Your task to perform on an android device: Go to Yahoo.com Image 0: 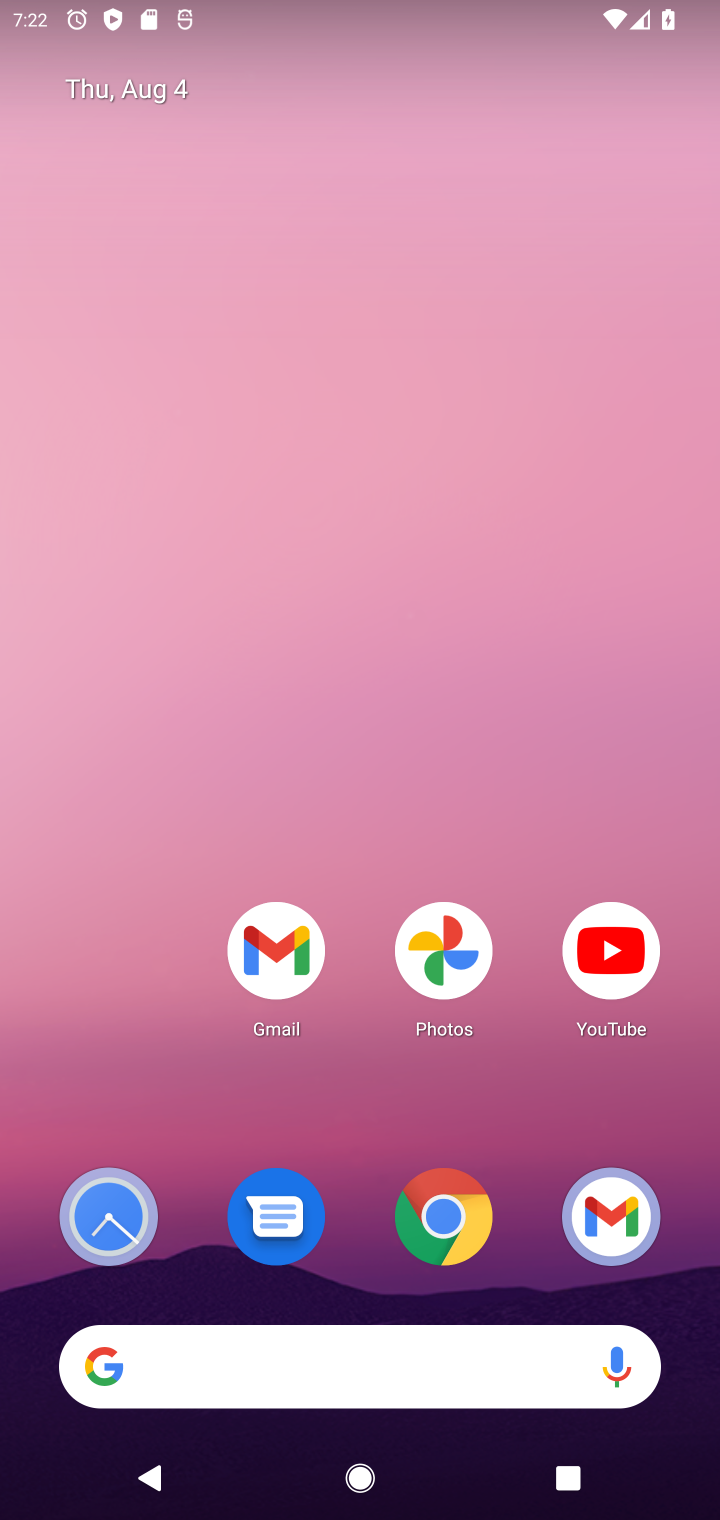
Step 0: click (451, 1217)
Your task to perform on an android device: Go to Yahoo.com Image 1: 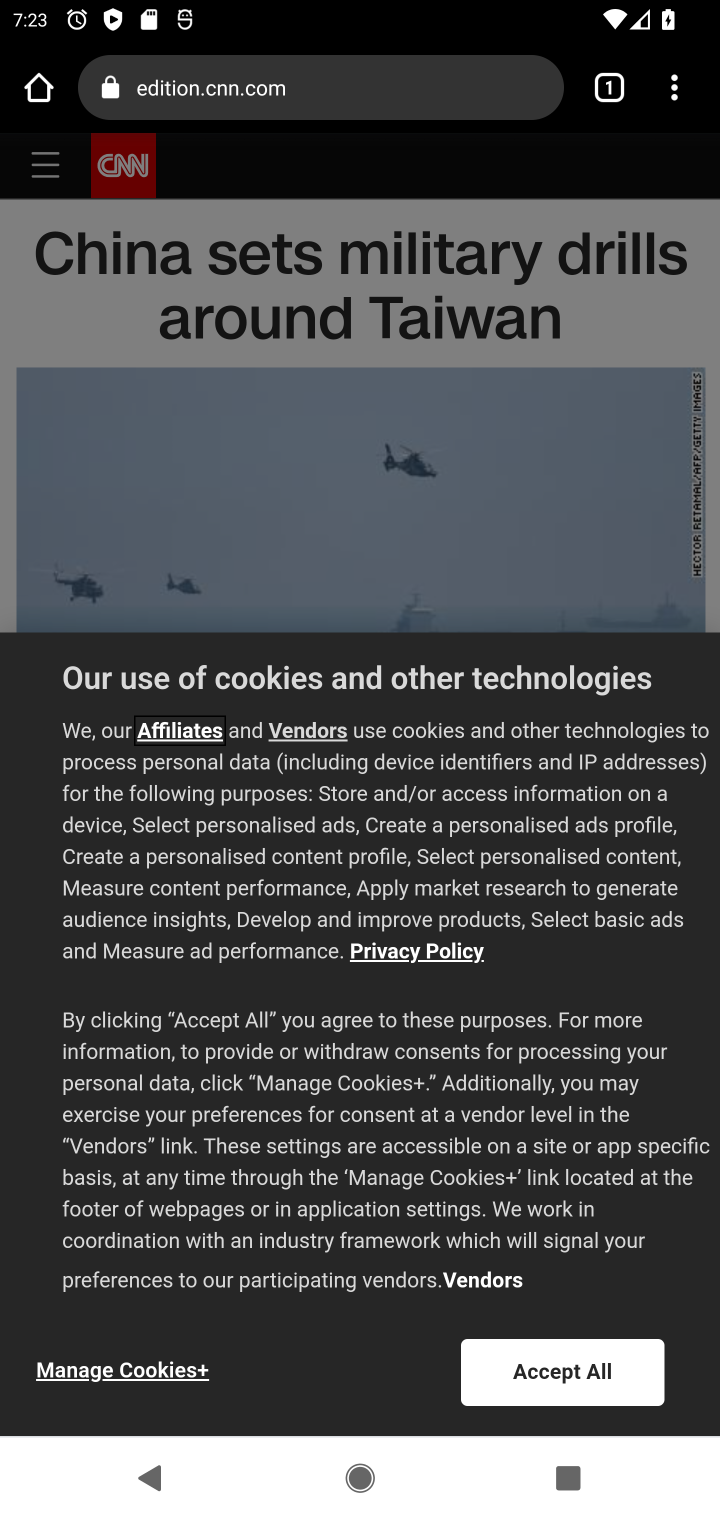
Step 1: click (466, 95)
Your task to perform on an android device: Go to Yahoo.com Image 2: 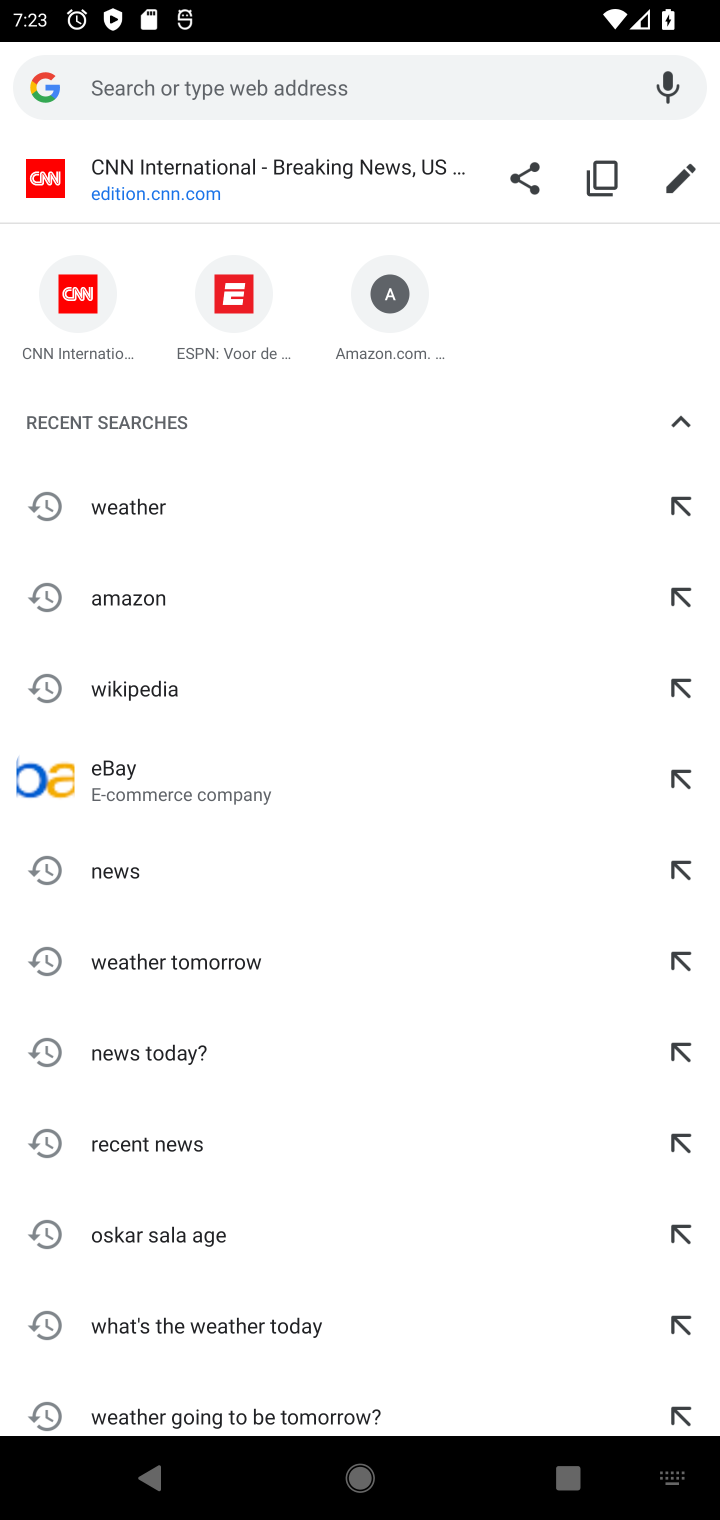
Step 2: type "yahoo.com"
Your task to perform on an android device: Go to Yahoo.com Image 3: 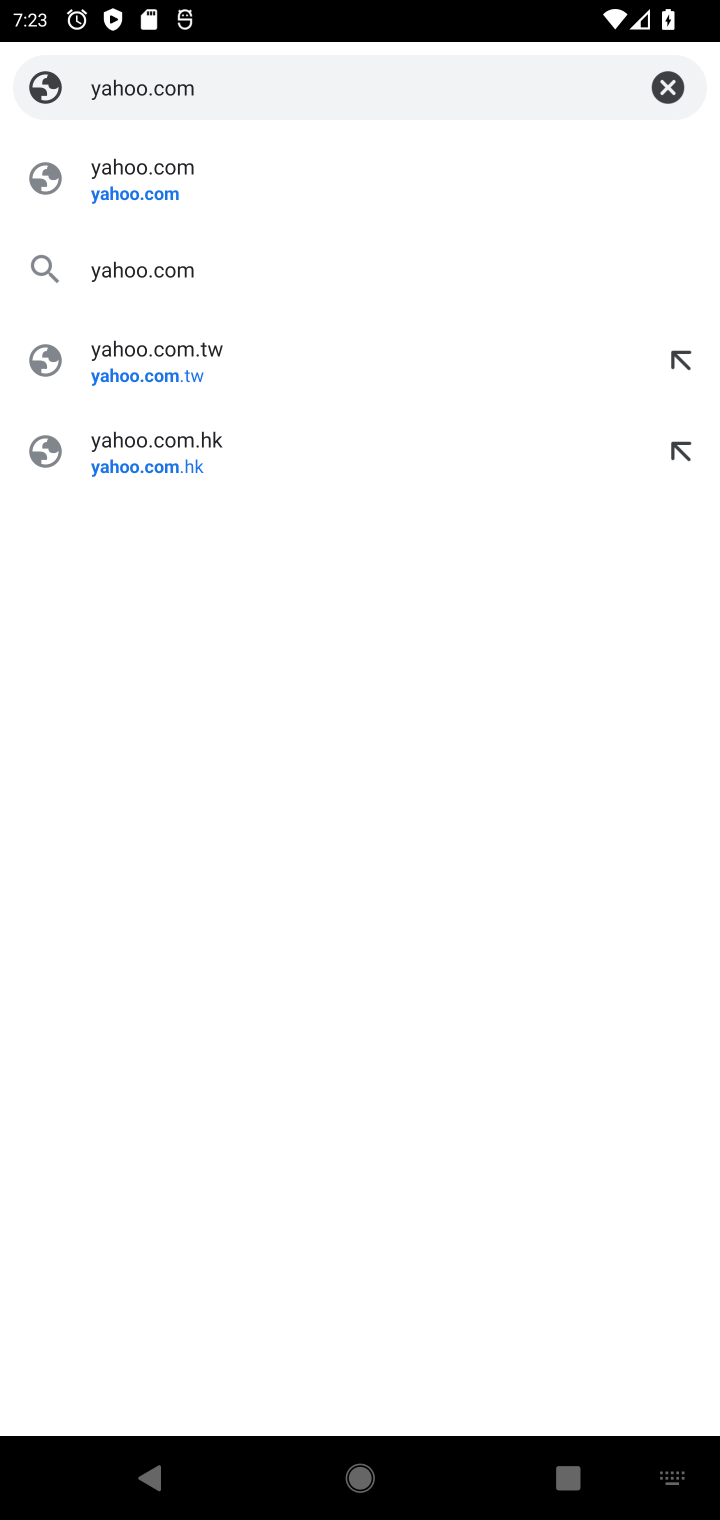
Step 3: click (196, 169)
Your task to perform on an android device: Go to Yahoo.com Image 4: 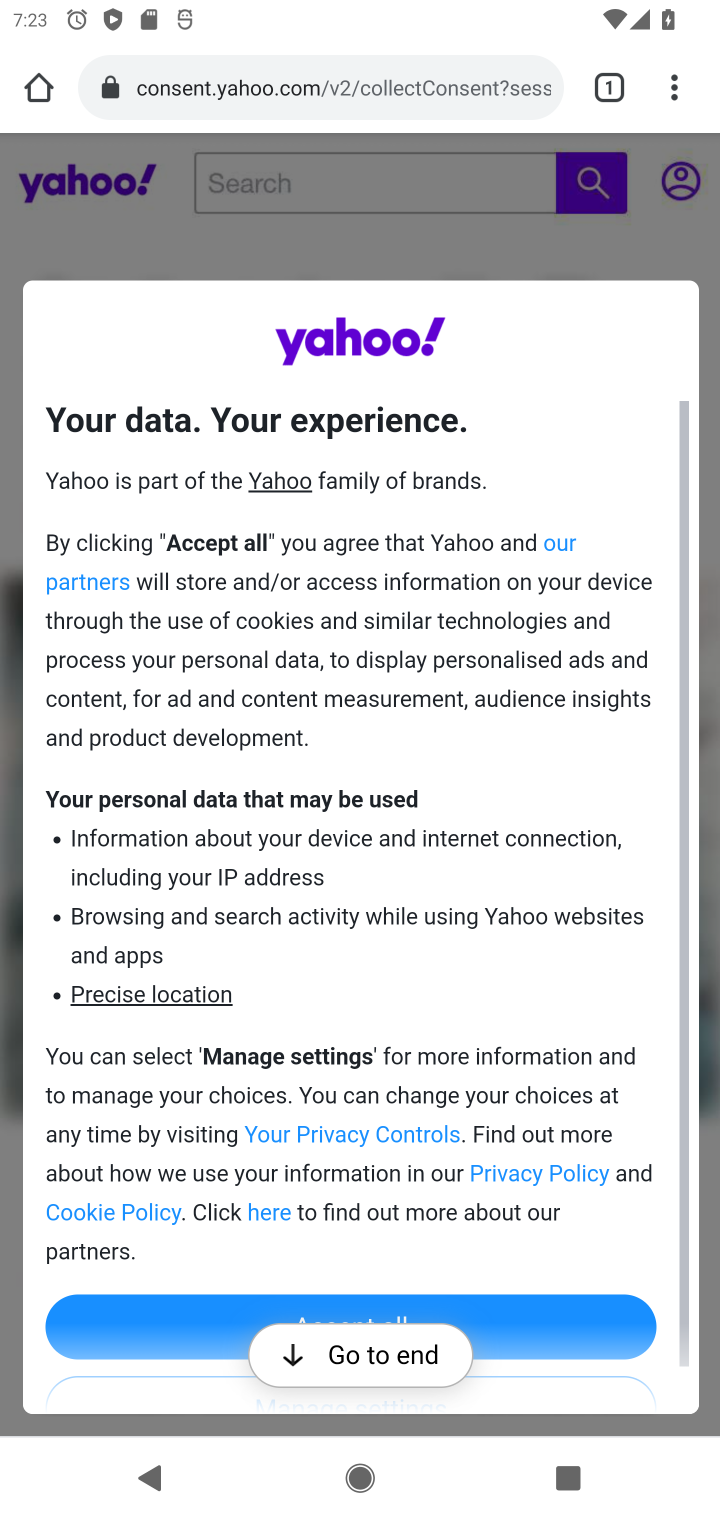
Step 4: task complete